Your task to perform on an android device: star an email in the gmail app Image 0: 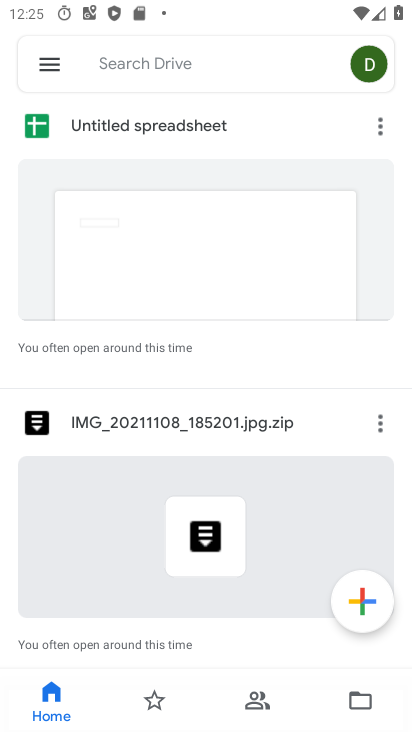
Step 0: press back button
Your task to perform on an android device: star an email in the gmail app Image 1: 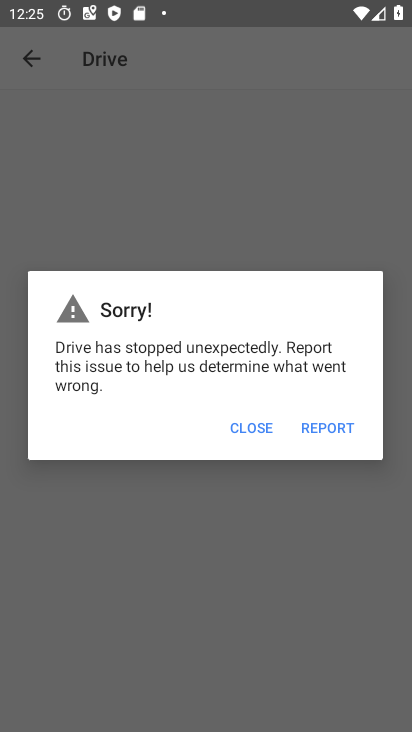
Step 1: click (230, 428)
Your task to perform on an android device: star an email in the gmail app Image 2: 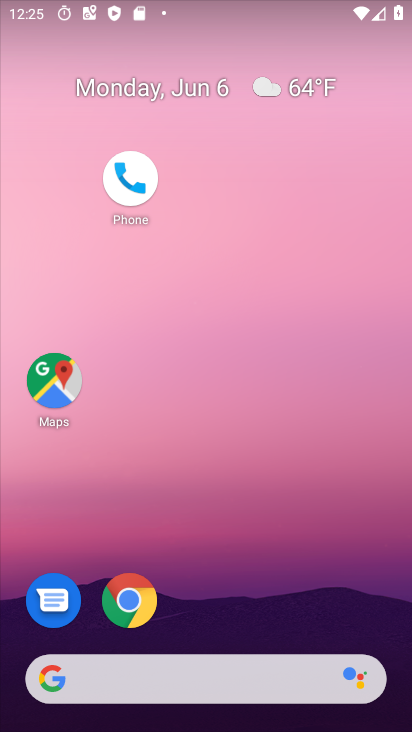
Step 2: drag from (284, 686) to (153, 140)
Your task to perform on an android device: star an email in the gmail app Image 3: 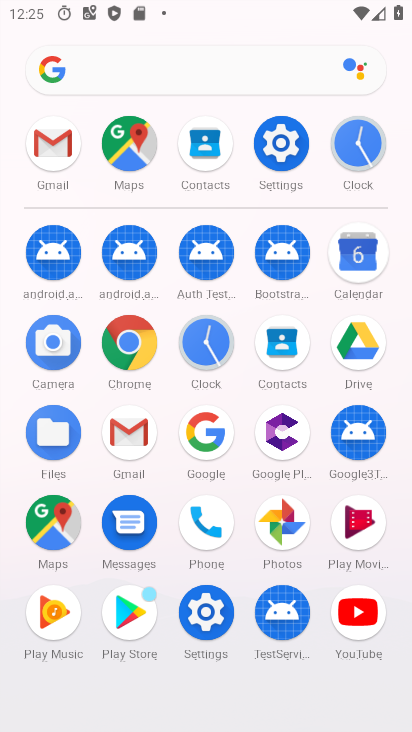
Step 3: click (117, 441)
Your task to perform on an android device: star an email in the gmail app Image 4: 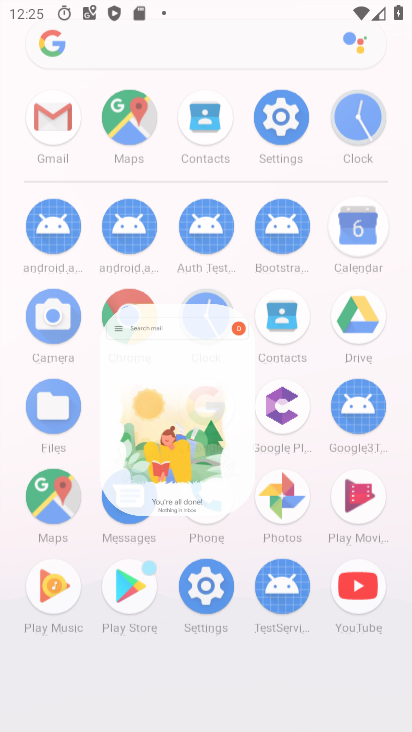
Step 4: click (117, 441)
Your task to perform on an android device: star an email in the gmail app Image 5: 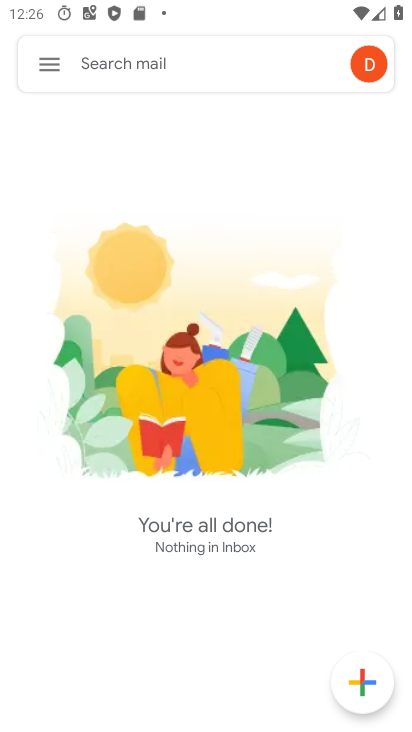
Step 5: click (52, 71)
Your task to perform on an android device: star an email in the gmail app Image 6: 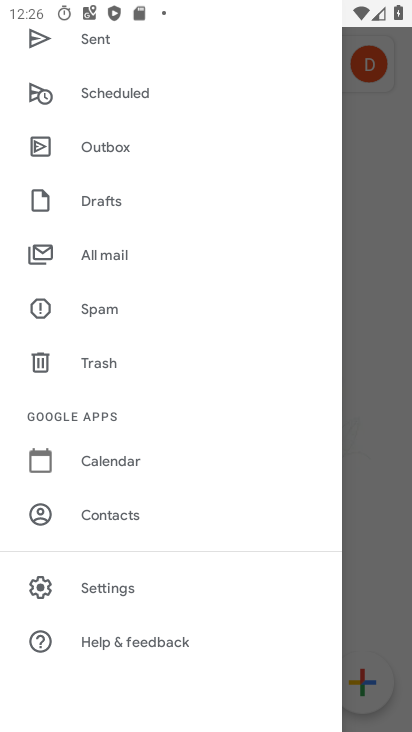
Step 6: click (95, 254)
Your task to perform on an android device: star an email in the gmail app Image 7: 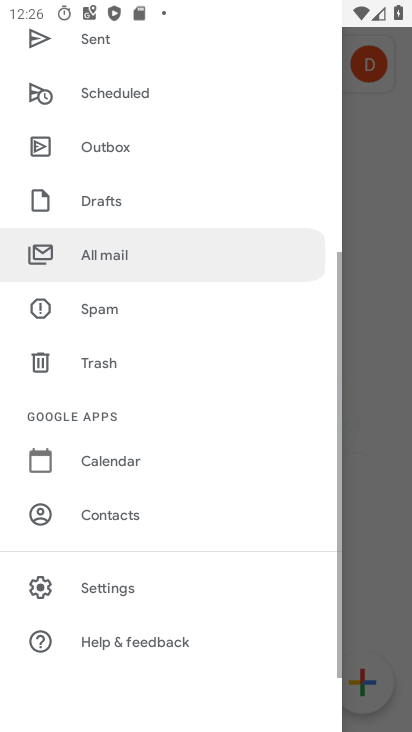
Step 7: click (95, 254)
Your task to perform on an android device: star an email in the gmail app Image 8: 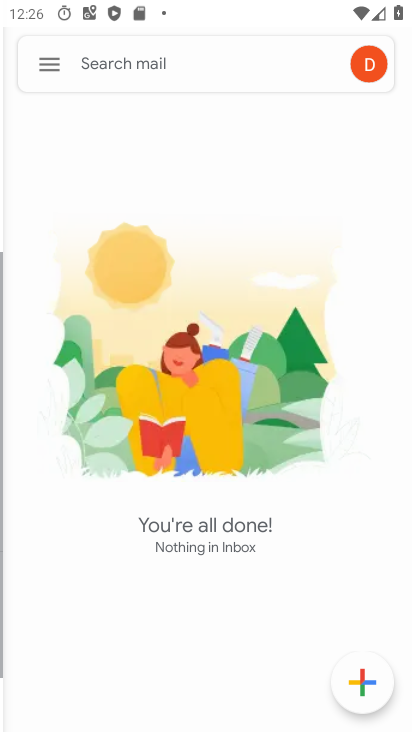
Step 8: click (95, 253)
Your task to perform on an android device: star an email in the gmail app Image 9: 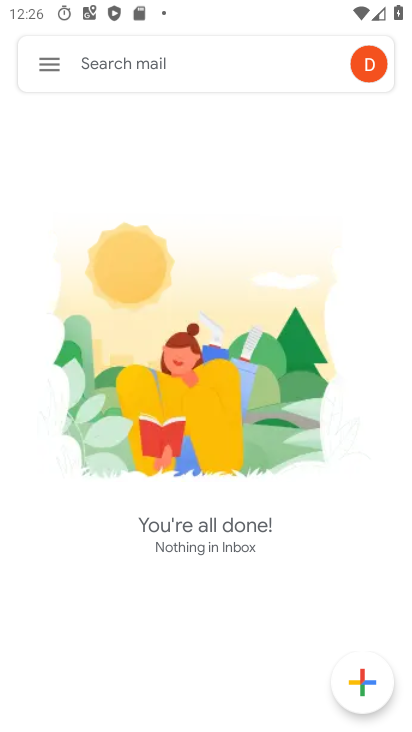
Step 9: click (95, 253)
Your task to perform on an android device: star an email in the gmail app Image 10: 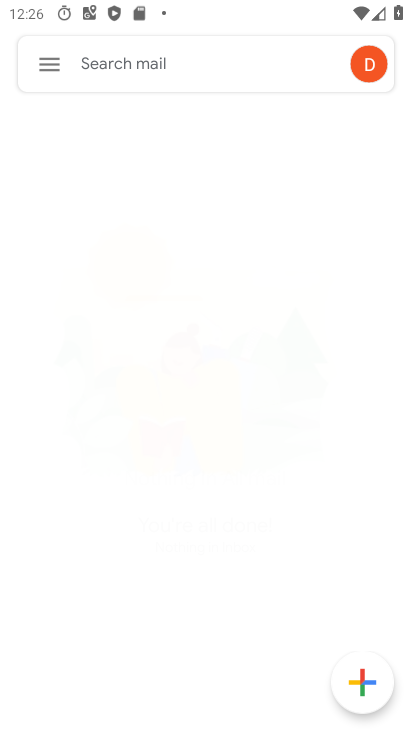
Step 10: click (95, 253)
Your task to perform on an android device: star an email in the gmail app Image 11: 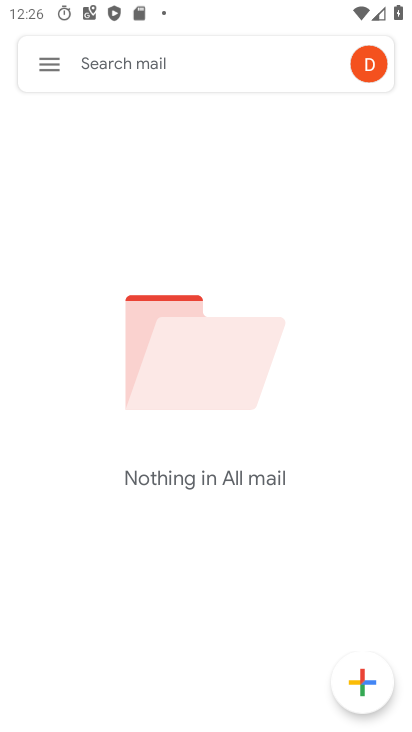
Step 11: task complete